Your task to perform on an android device: Go to Yahoo.com Image 0: 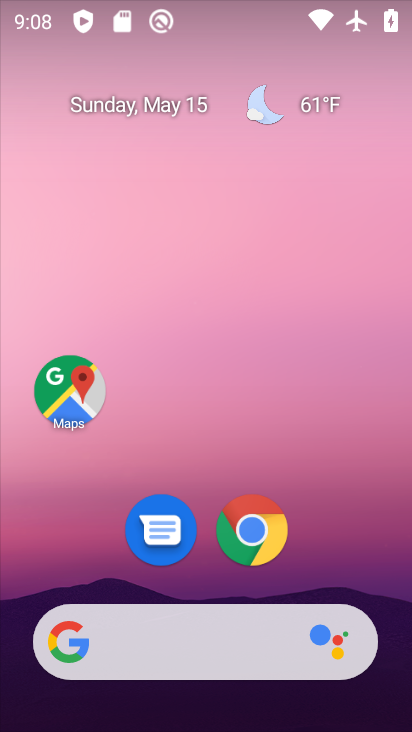
Step 0: click (253, 533)
Your task to perform on an android device: Go to Yahoo.com Image 1: 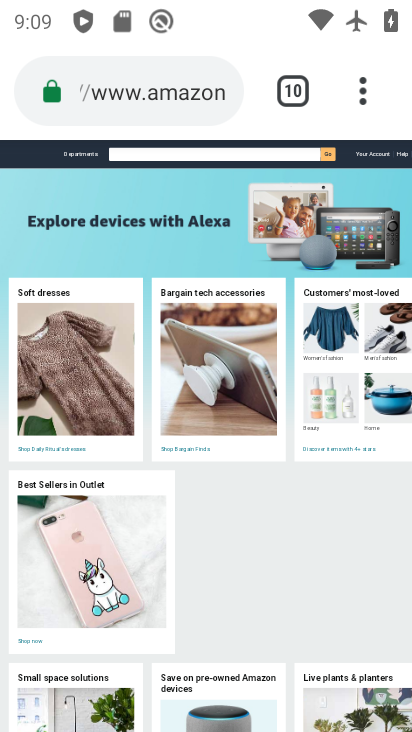
Step 1: click (365, 100)
Your task to perform on an android device: Go to Yahoo.com Image 2: 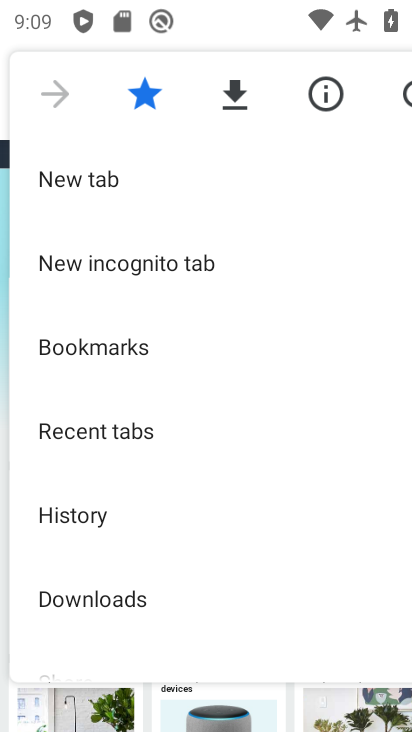
Step 2: click (93, 180)
Your task to perform on an android device: Go to Yahoo.com Image 3: 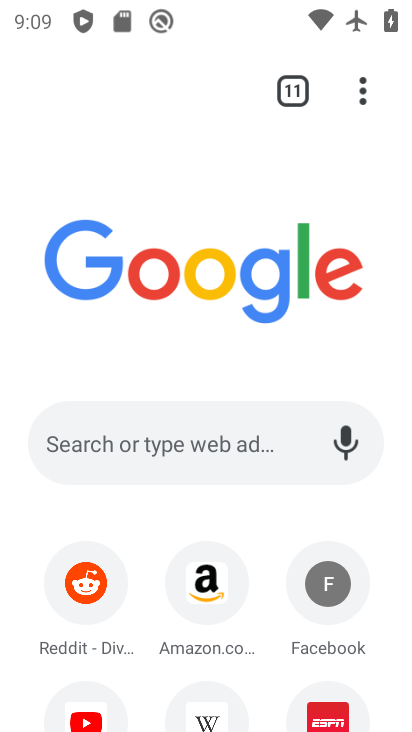
Step 3: click (187, 456)
Your task to perform on an android device: Go to Yahoo.com Image 4: 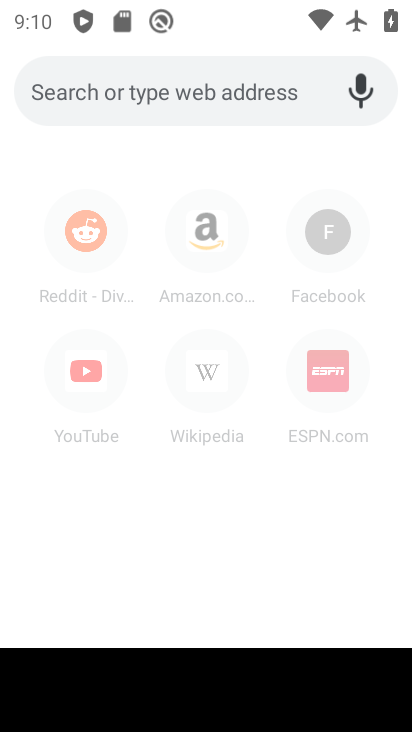
Step 4: type "Yahoo.com"
Your task to perform on an android device: Go to Yahoo.com Image 5: 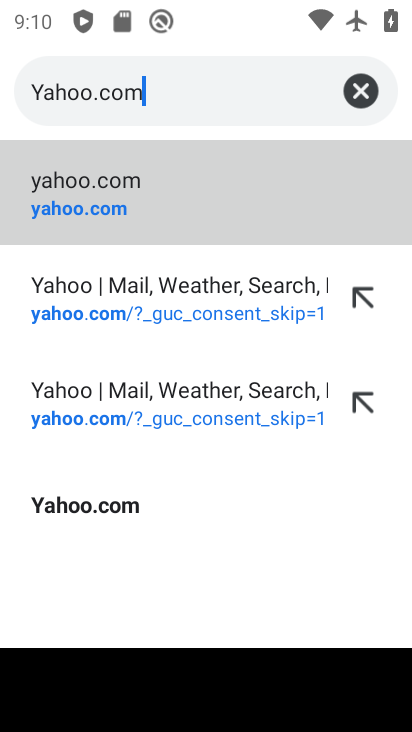
Step 5: type ""
Your task to perform on an android device: Go to Yahoo.com Image 6: 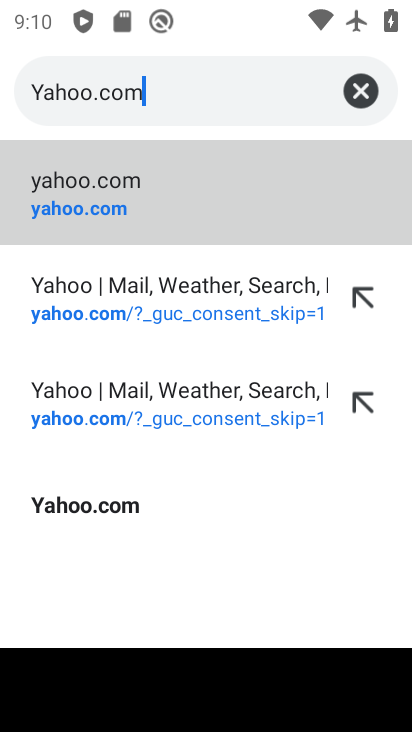
Step 6: click (108, 190)
Your task to perform on an android device: Go to Yahoo.com Image 7: 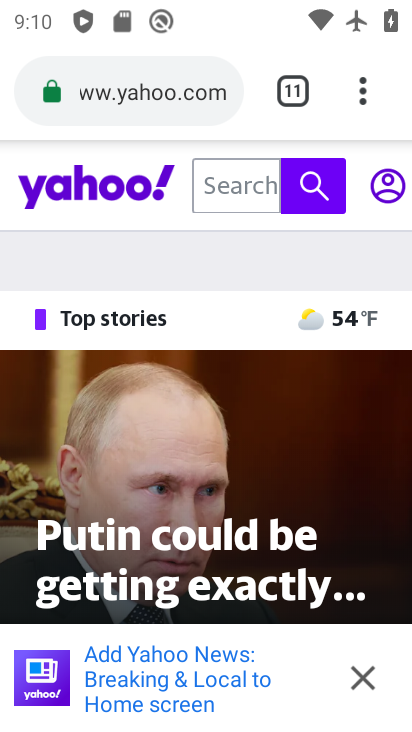
Step 7: task complete